Your task to perform on an android device: Go to privacy settings Image 0: 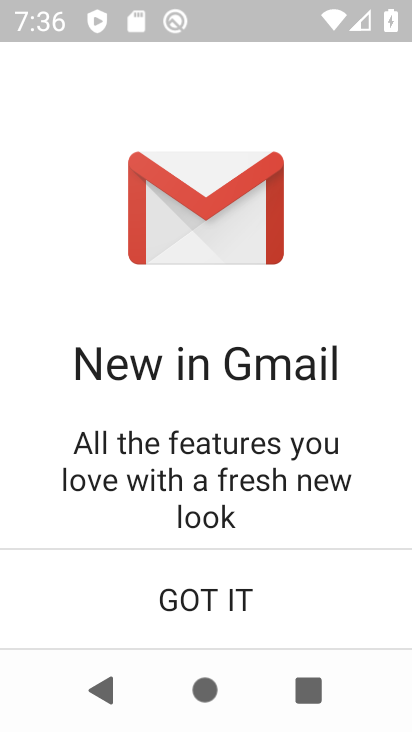
Step 0: click (211, 606)
Your task to perform on an android device: Go to privacy settings Image 1: 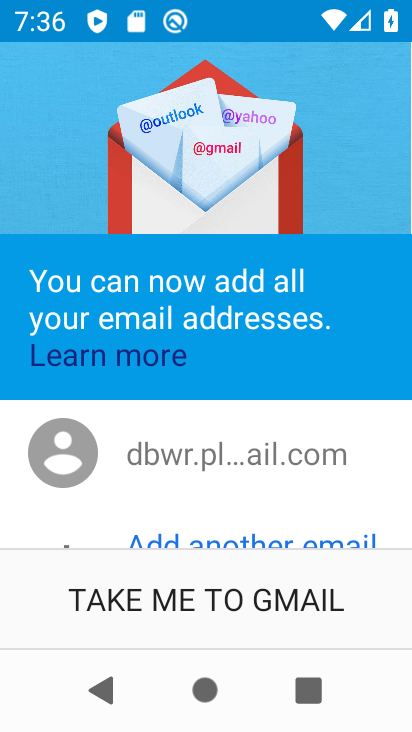
Step 1: press back button
Your task to perform on an android device: Go to privacy settings Image 2: 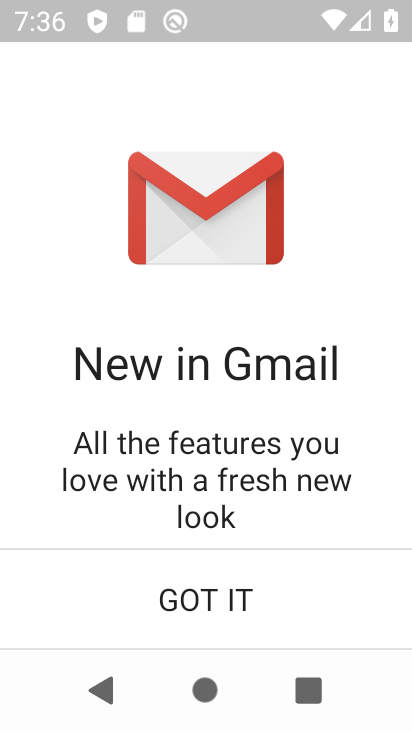
Step 2: press back button
Your task to perform on an android device: Go to privacy settings Image 3: 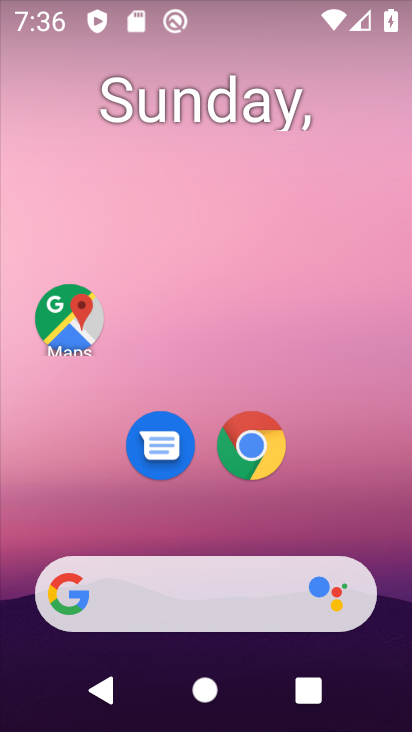
Step 3: drag from (307, 430) to (210, 3)
Your task to perform on an android device: Go to privacy settings Image 4: 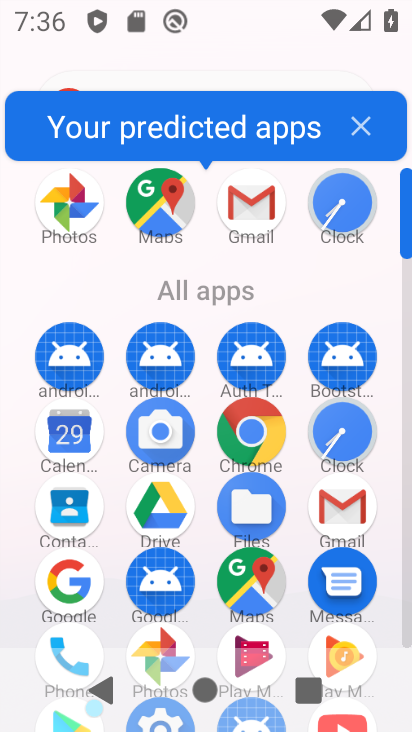
Step 4: click (244, 428)
Your task to perform on an android device: Go to privacy settings Image 5: 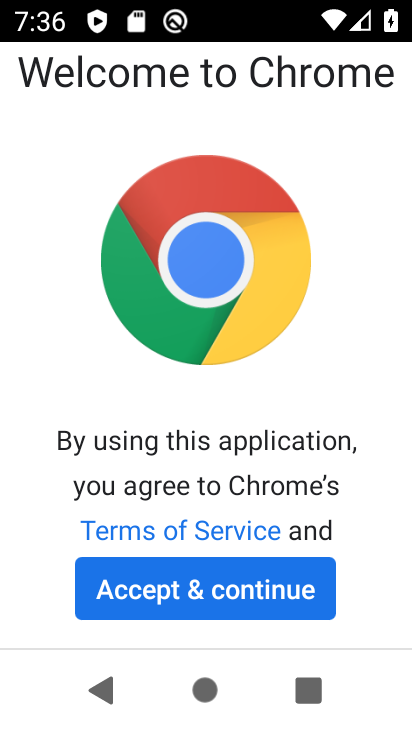
Step 5: click (174, 591)
Your task to perform on an android device: Go to privacy settings Image 6: 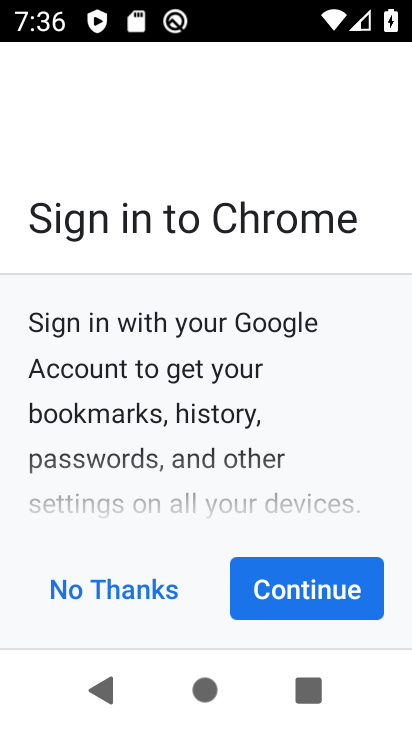
Step 6: click (310, 587)
Your task to perform on an android device: Go to privacy settings Image 7: 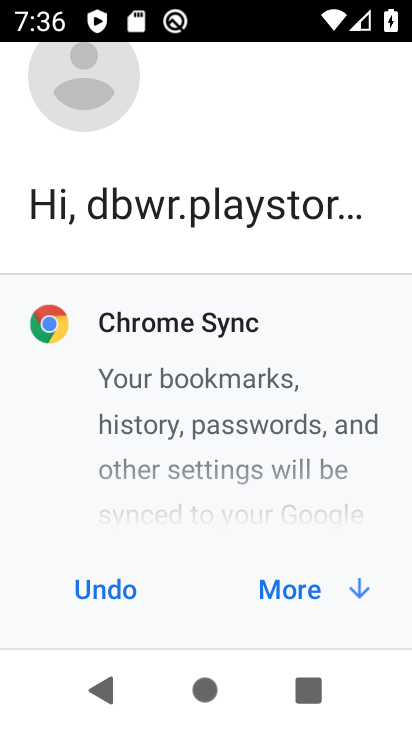
Step 7: click (305, 586)
Your task to perform on an android device: Go to privacy settings Image 8: 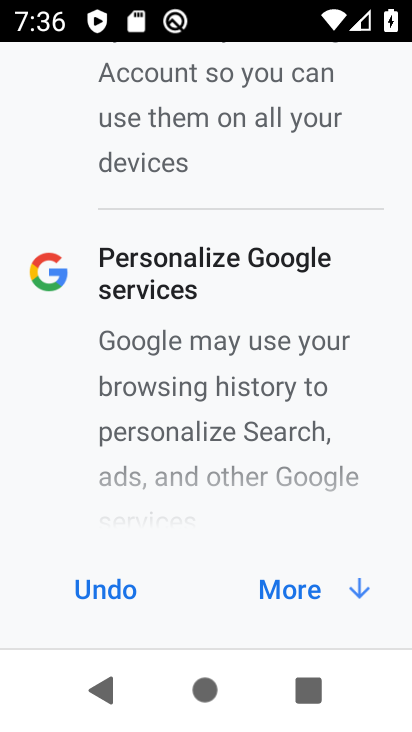
Step 8: click (306, 586)
Your task to perform on an android device: Go to privacy settings Image 9: 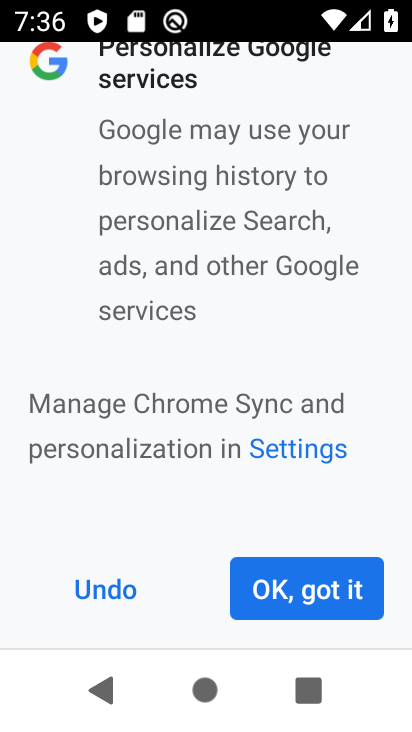
Step 9: click (305, 585)
Your task to perform on an android device: Go to privacy settings Image 10: 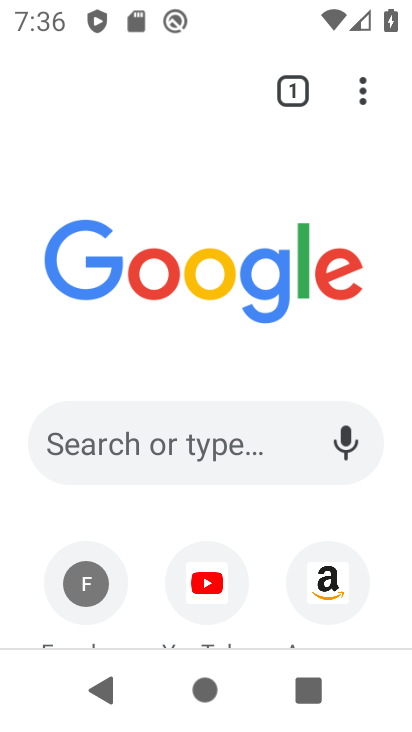
Step 10: drag from (365, 91) to (111, 480)
Your task to perform on an android device: Go to privacy settings Image 11: 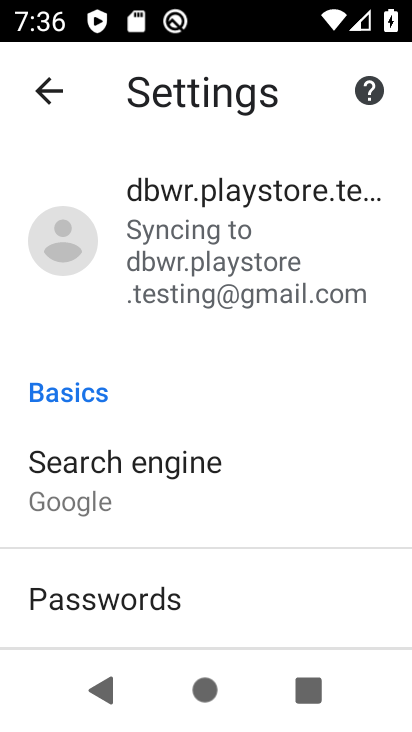
Step 11: drag from (223, 510) to (223, 119)
Your task to perform on an android device: Go to privacy settings Image 12: 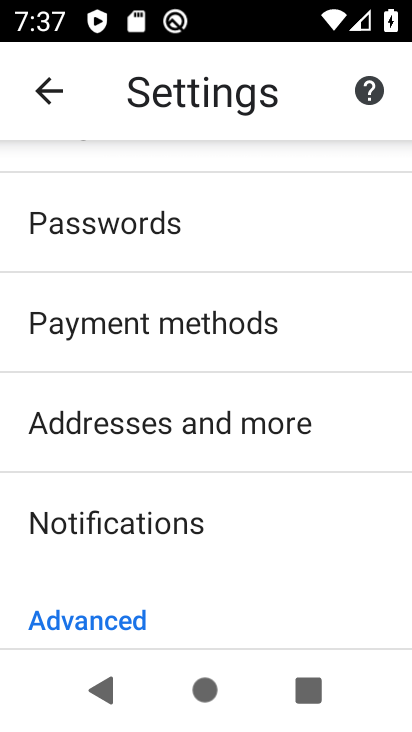
Step 12: drag from (247, 542) to (256, 197)
Your task to perform on an android device: Go to privacy settings Image 13: 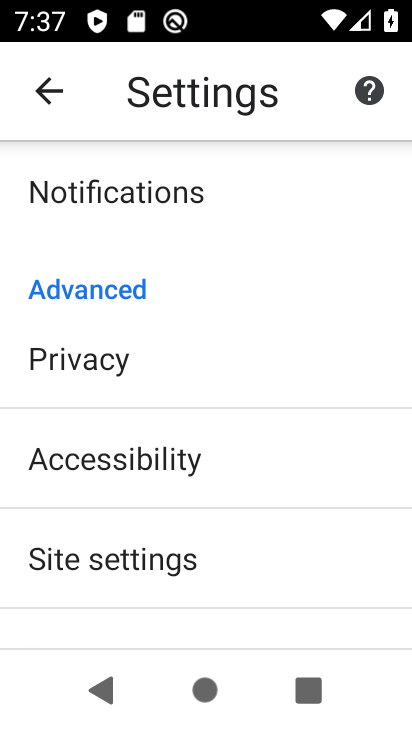
Step 13: click (139, 365)
Your task to perform on an android device: Go to privacy settings Image 14: 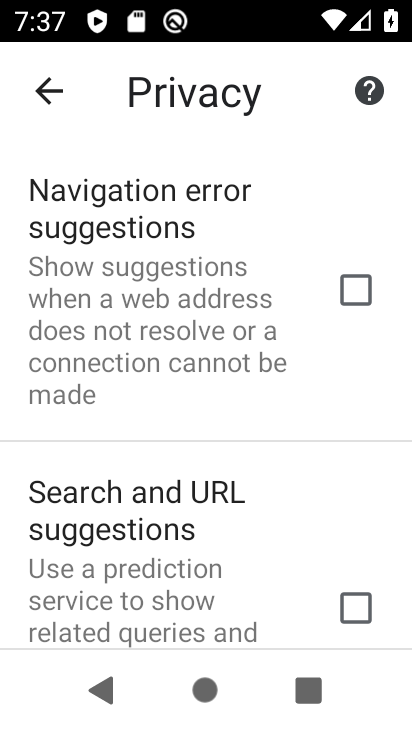
Step 14: task complete